Your task to perform on an android device: choose inbox layout in the gmail app Image 0: 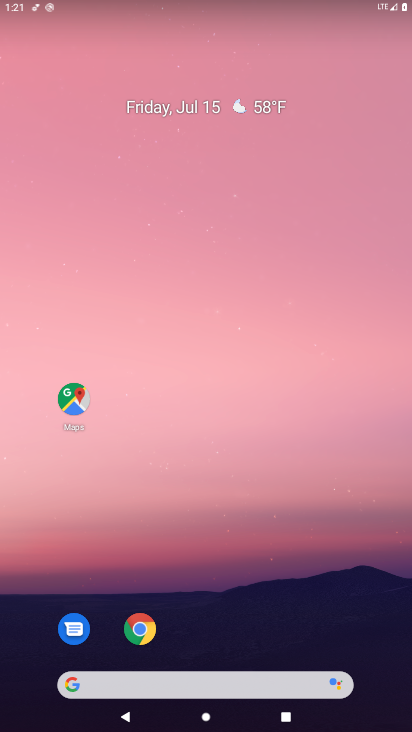
Step 0: press home button
Your task to perform on an android device: choose inbox layout in the gmail app Image 1: 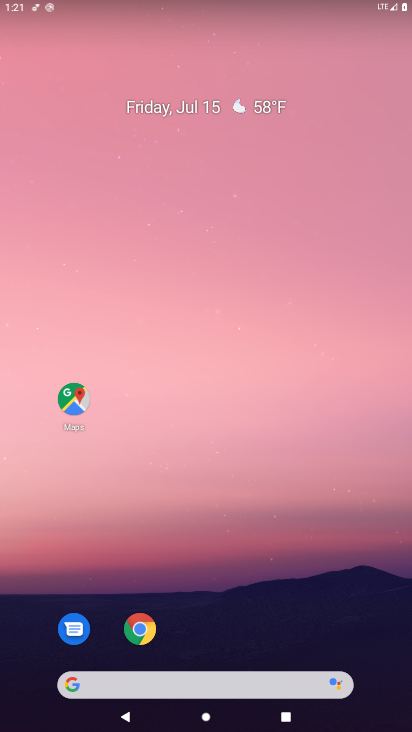
Step 1: drag from (193, 700) to (267, 199)
Your task to perform on an android device: choose inbox layout in the gmail app Image 2: 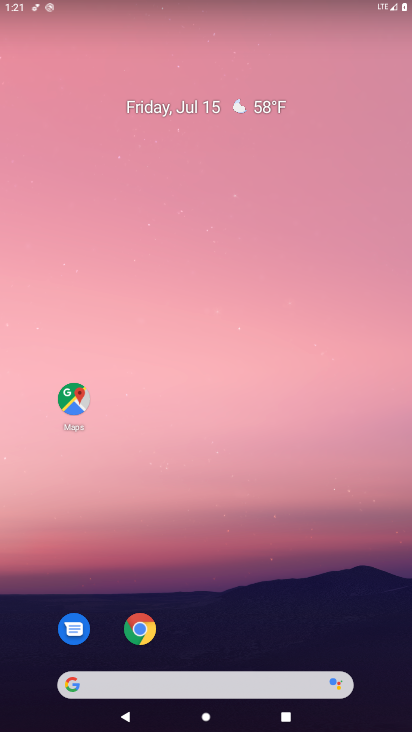
Step 2: drag from (270, 596) to (338, 184)
Your task to perform on an android device: choose inbox layout in the gmail app Image 3: 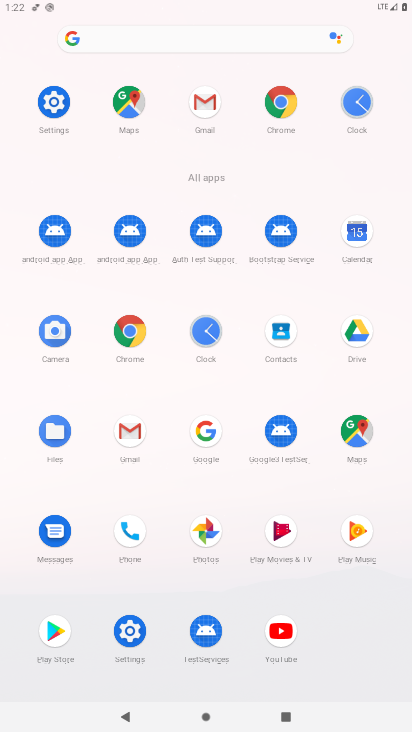
Step 3: click (215, 103)
Your task to perform on an android device: choose inbox layout in the gmail app Image 4: 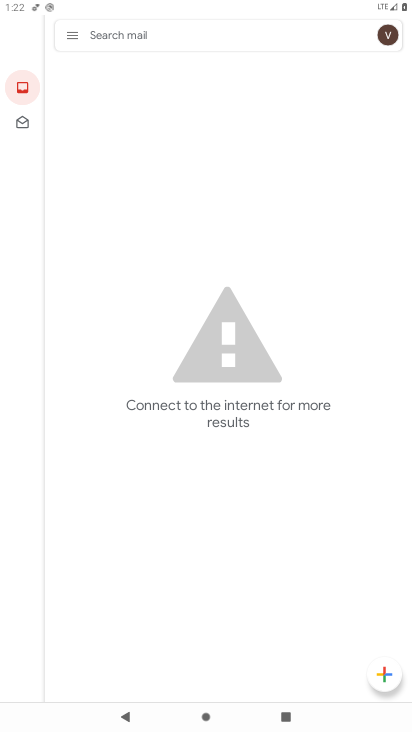
Step 4: click (66, 31)
Your task to perform on an android device: choose inbox layout in the gmail app Image 5: 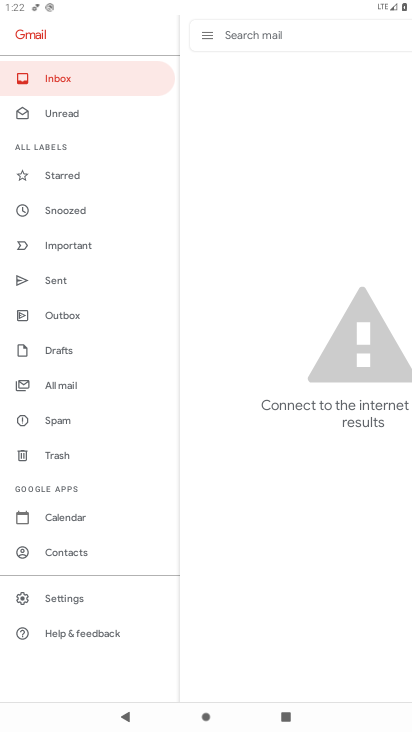
Step 5: click (33, 609)
Your task to perform on an android device: choose inbox layout in the gmail app Image 6: 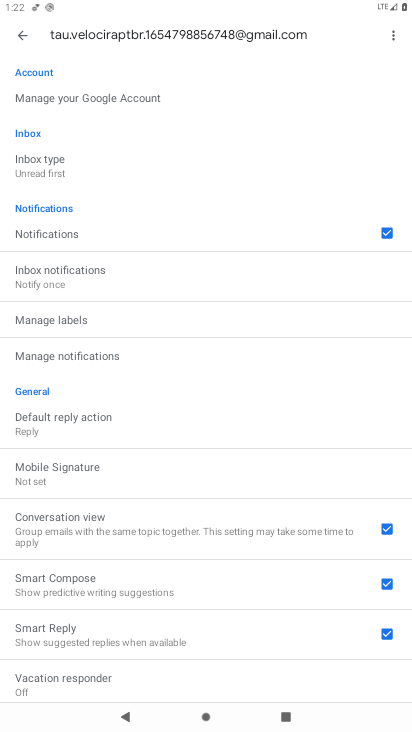
Step 6: click (48, 177)
Your task to perform on an android device: choose inbox layout in the gmail app Image 7: 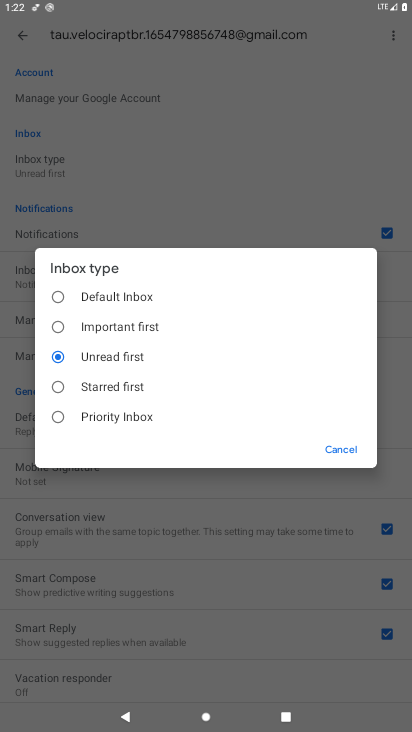
Step 7: click (98, 315)
Your task to perform on an android device: choose inbox layout in the gmail app Image 8: 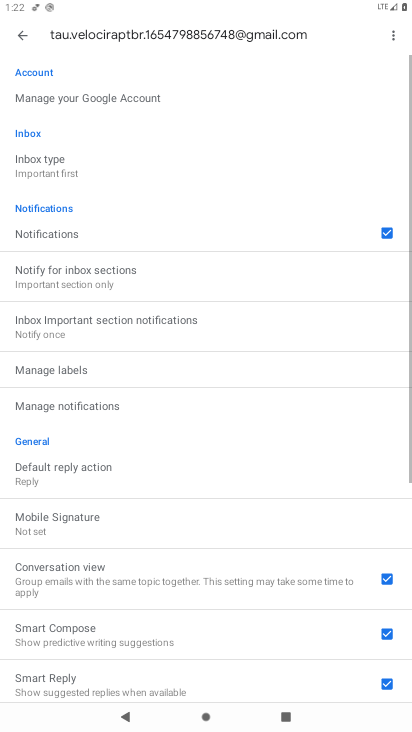
Step 8: task complete